Your task to perform on an android device: Open privacy settings Image 0: 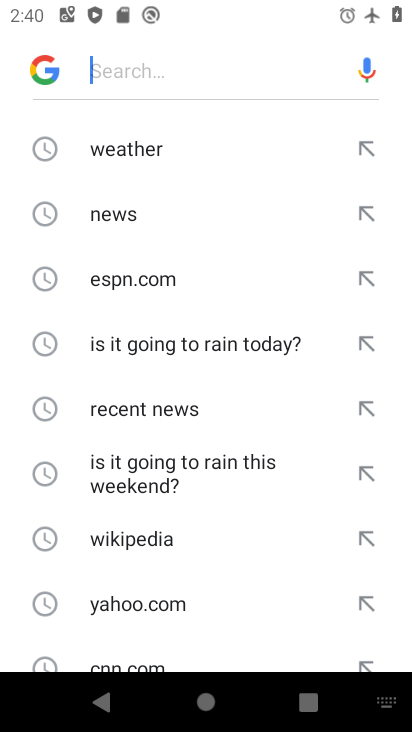
Step 0: press back button
Your task to perform on an android device: Open privacy settings Image 1: 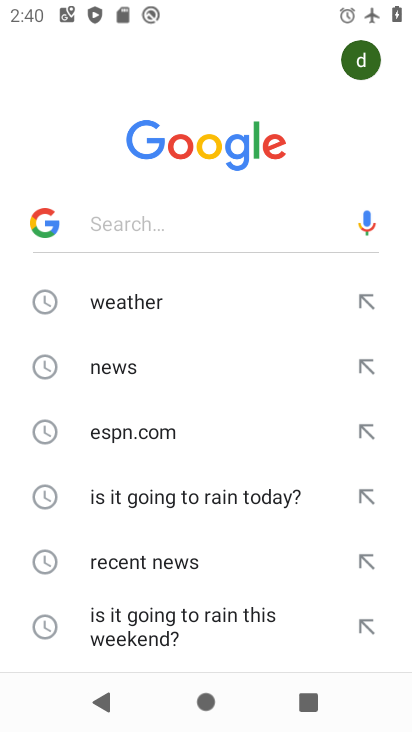
Step 1: press back button
Your task to perform on an android device: Open privacy settings Image 2: 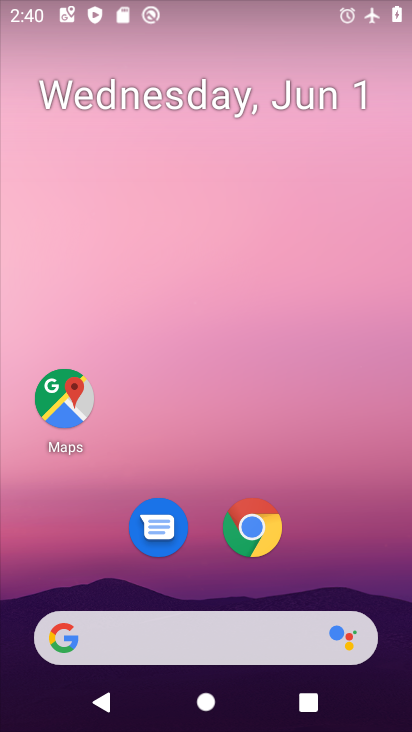
Step 2: drag from (335, 575) to (259, 66)
Your task to perform on an android device: Open privacy settings Image 3: 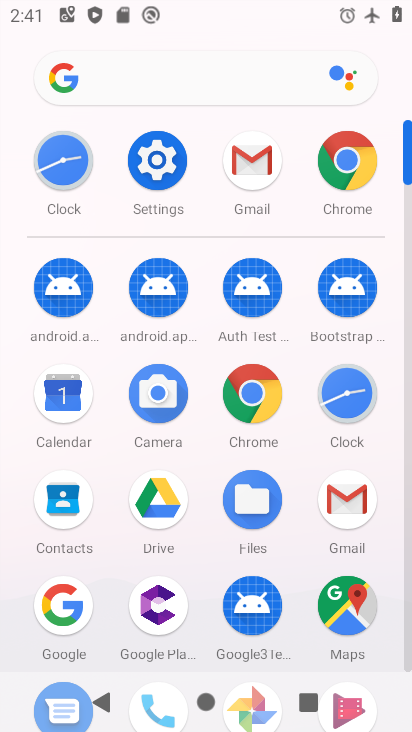
Step 3: click (157, 161)
Your task to perform on an android device: Open privacy settings Image 4: 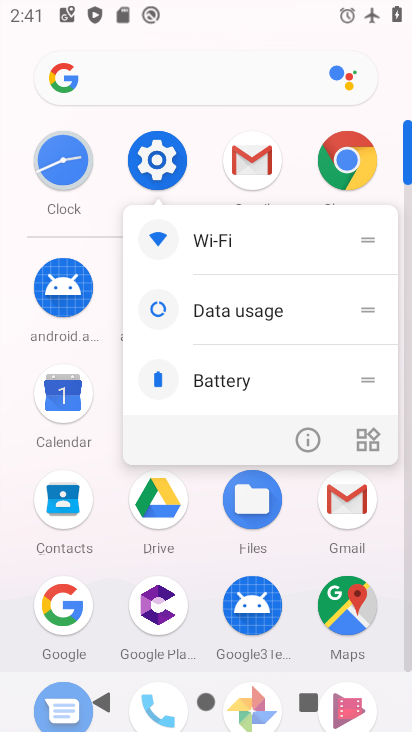
Step 4: click (157, 161)
Your task to perform on an android device: Open privacy settings Image 5: 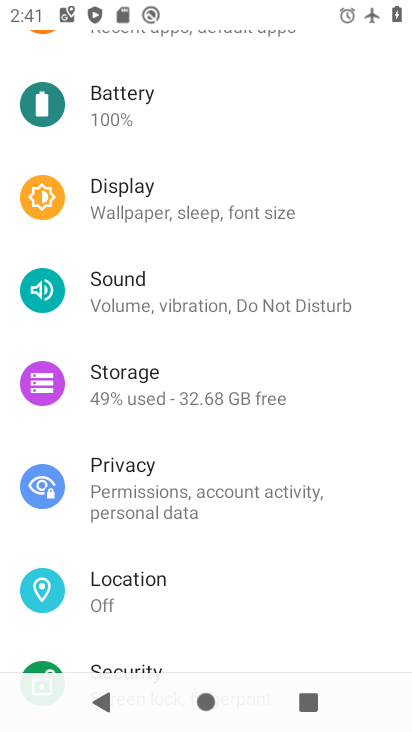
Step 5: click (139, 465)
Your task to perform on an android device: Open privacy settings Image 6: 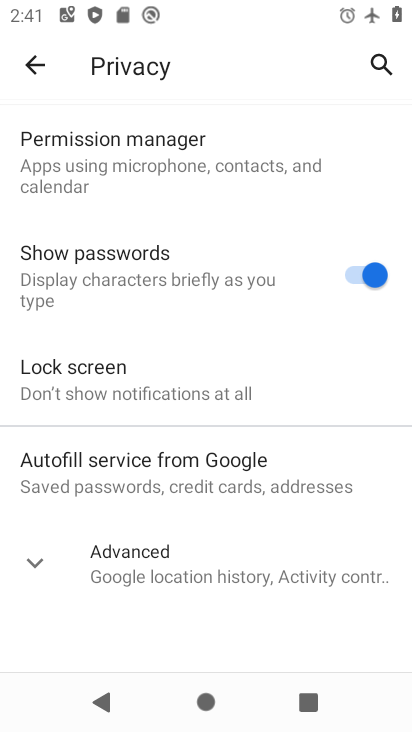
Step 6: task complete